Your task to perform on an android device: toggle airplane mode Image 0: 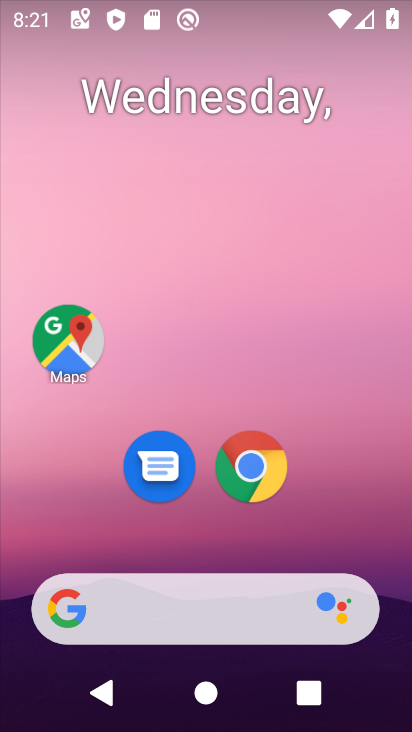
Step 0: drag from (315, 548) to (348, 0)
Your task to perform on an android device: toggle airplane mode Image 1: 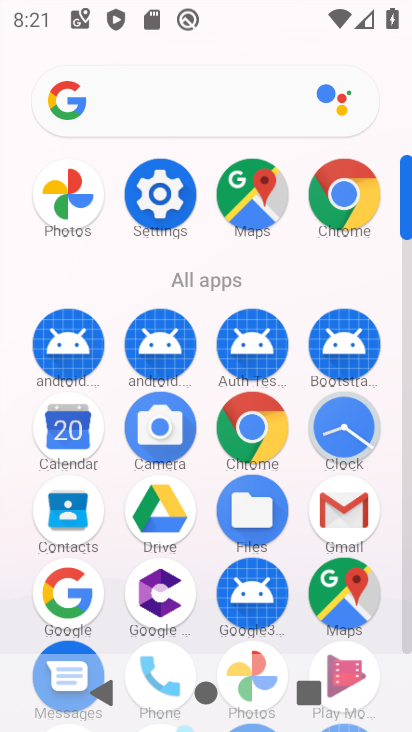
Step 1: click (138, 200)
Your task to perform on an android device: toggle airplane mode Image 2: 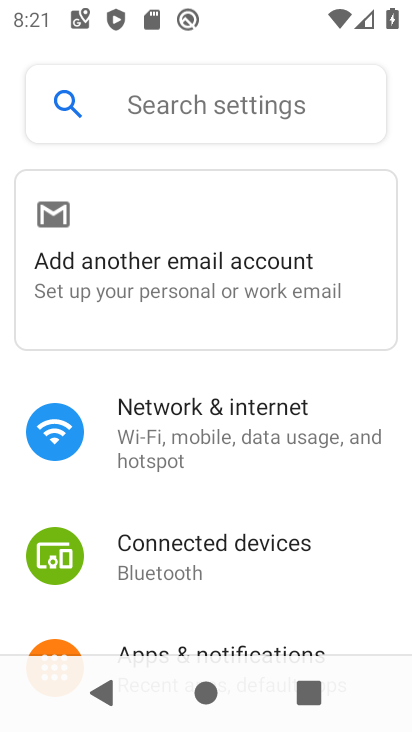
Step 2: click (192, 426)
Your task to perform on an android device: toggle airplane mode Image 3: 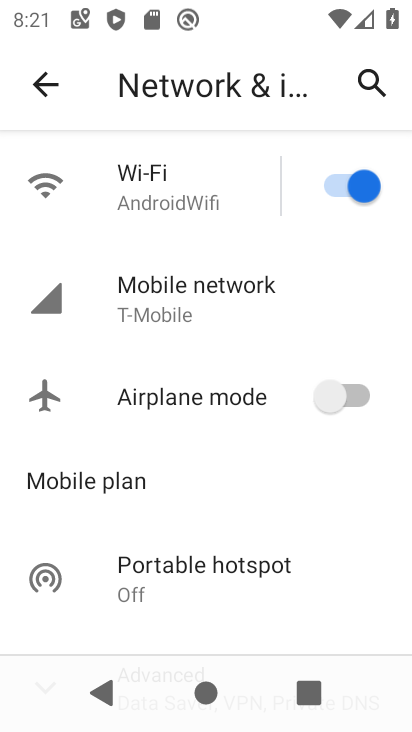
Step 3: click (332, 396)
Your task to perform on an android device: toggle airplane mode Image 4: 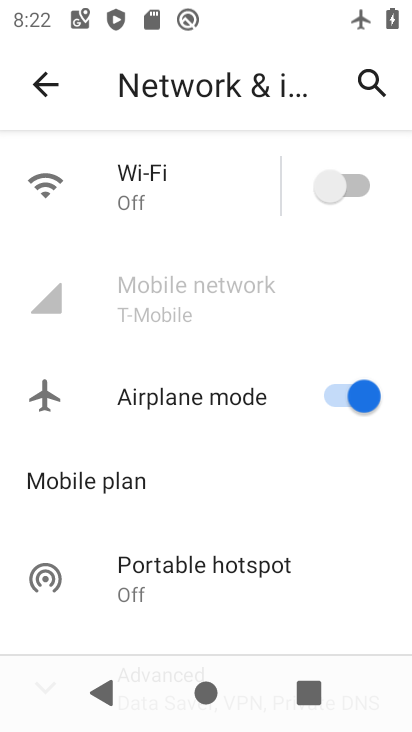
Step 4: task complete